Your task to perform on an android device: Open display settings Image 0: 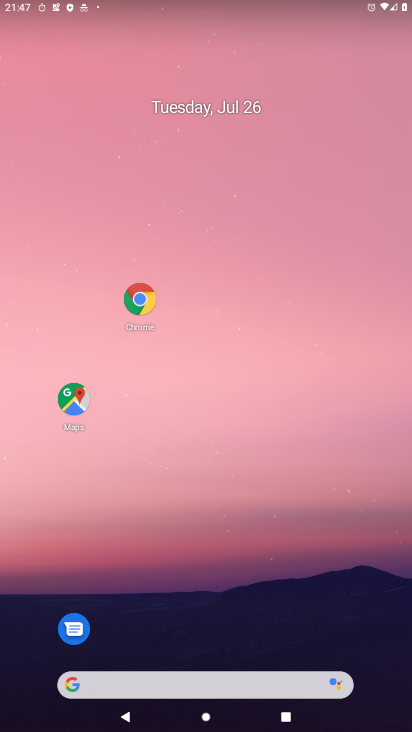
Step 0: click (206, 269)
Your task to perform on an android device: Open display settings Image 1: 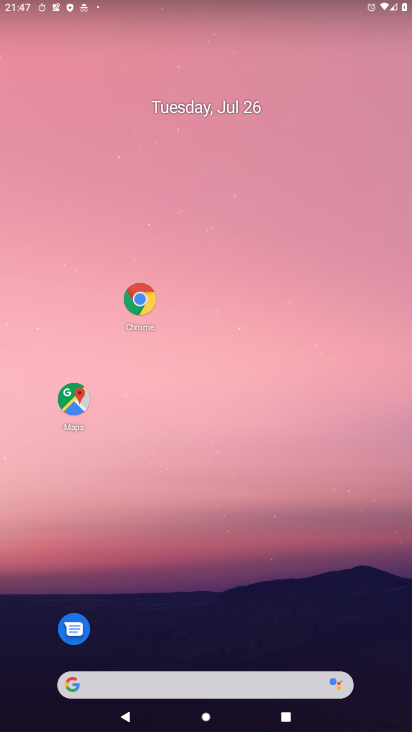
Step 1: drag from (242, 650) to (121, 122)
Your task to perform on an android device: Open display settings Image 2: 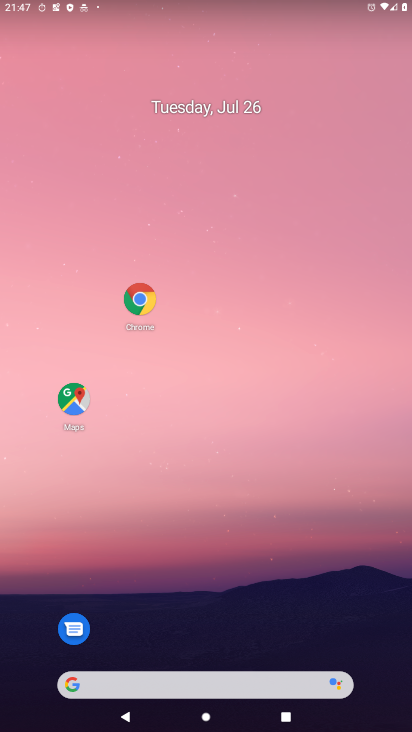
Step 2: drag from (160, 154) to (146, 58)
Your task to perform on an android device: Open display settings Image 3: 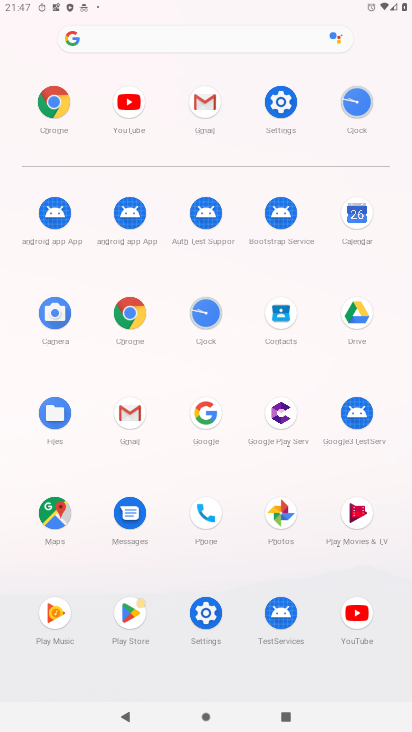
Step 3: drag from (293, 462) to (186, 13)
Your task to perform on an android device: Open display settings Image 4: 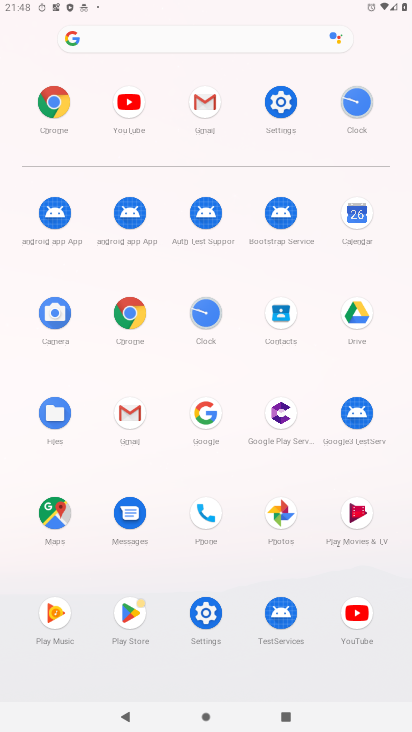
Step 4: click (199, 616)
Your task to perform on an android device: Open display settings Image 5: 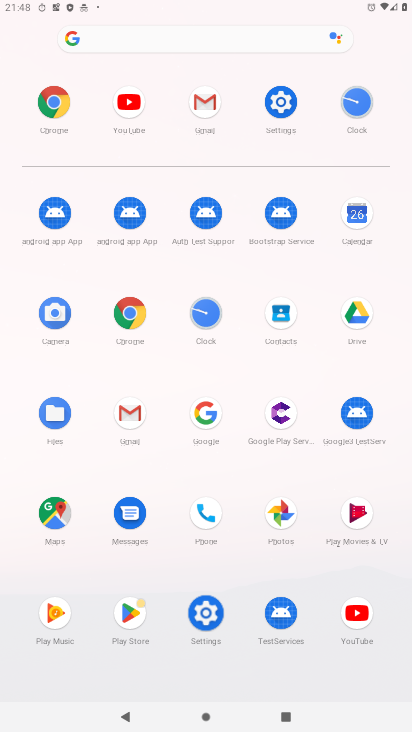
Step 5: click (201, 614)
Your task to perform on an android device: Open display settings Image 6: 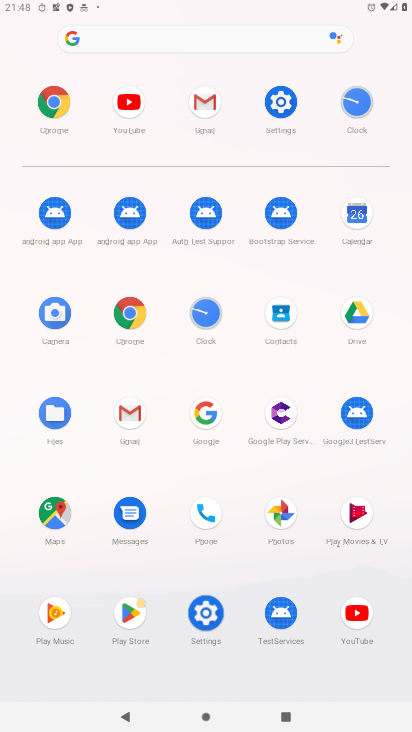
Step 6: click (201, 614)
Your task to perform on an android device: Open display settings Image 7: 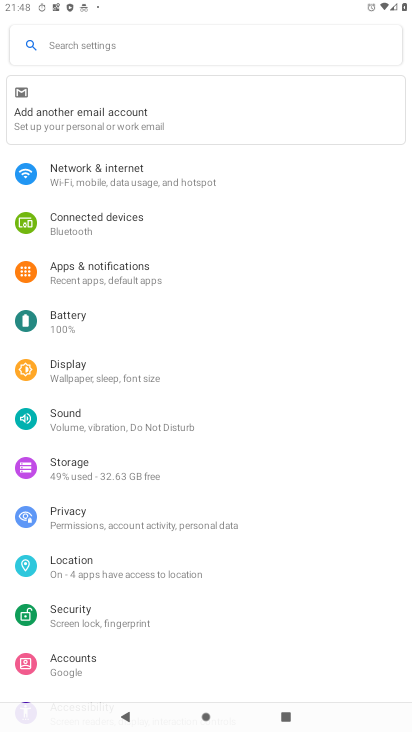
Step 7: click (66, 369)
Your task to perform on an android device: Open display settings Image 8: 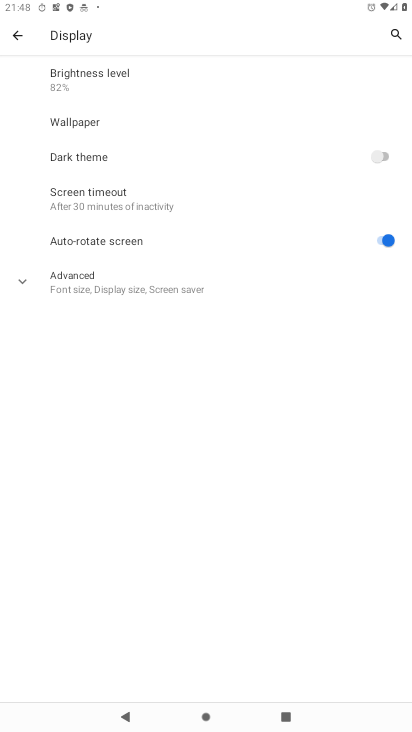
Step 8: task complete